Your task to perform on an android device: Open the stopwatch Image 0: 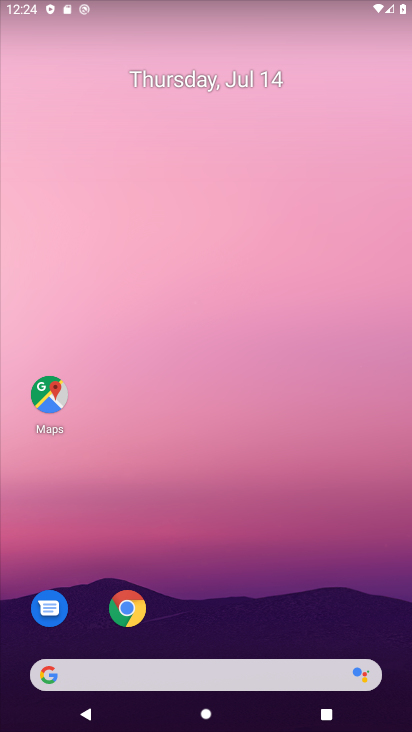
Step 0: press home button
Your task to perform on an android device: Open the stopwatch Image 1: 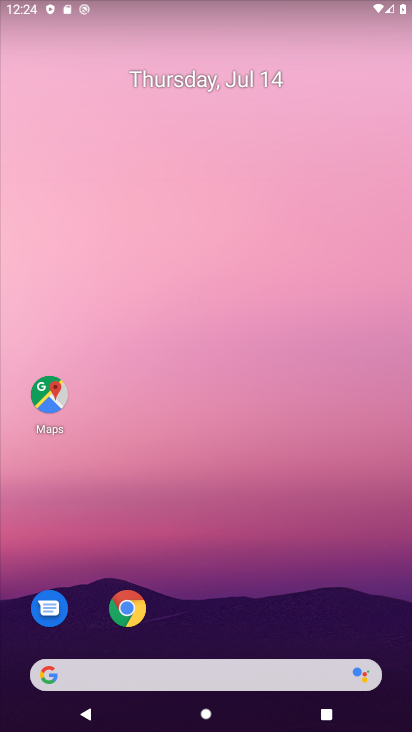
Step 1: drag from (222, 604) to (115, 44)
Your task to perform on an android device: Open the stopwatch Image 2: 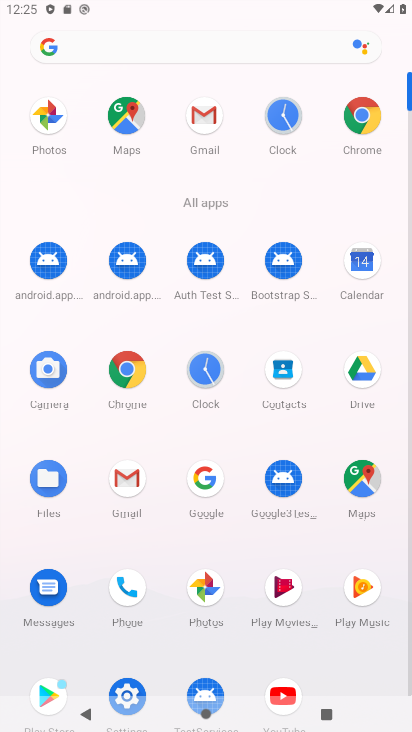
Step 2: click (218, 363)
Your task to perform on an android device: Open the stopwatch Image 3: 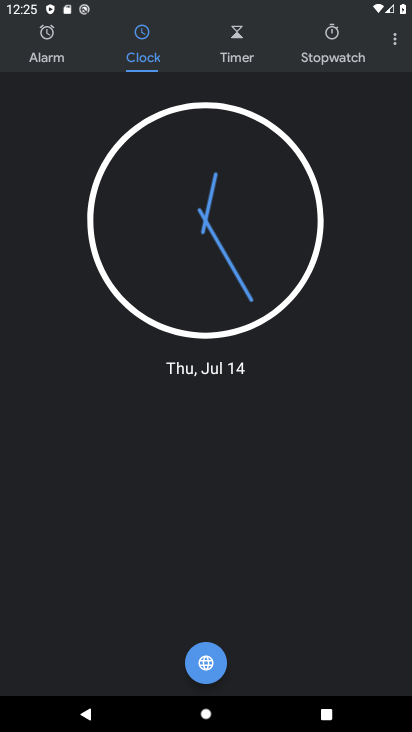
Step 3: click (323, 51)
Your task to perform on an android device: Open the stopwatch Image 4: 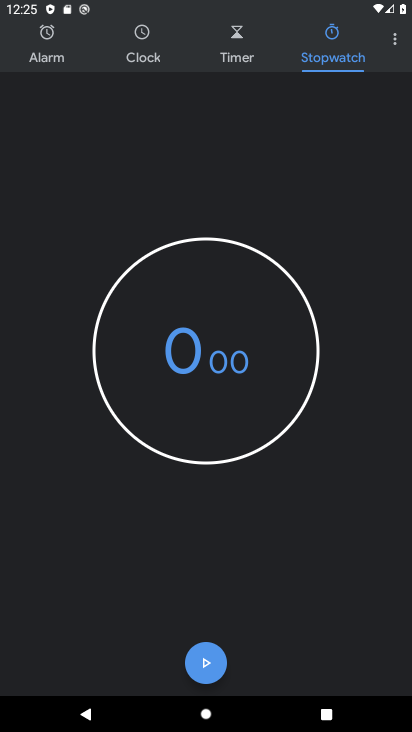
Step 4: click (209, 674)
Your task to perform on an android device: Open the stopwatch Image 5: 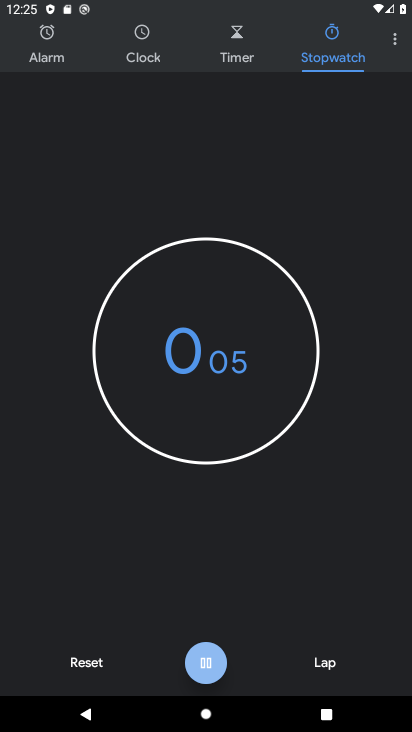
Step 5: click (209, 674)
Your task to perform on an android device: Open the stopwatch Image 6: 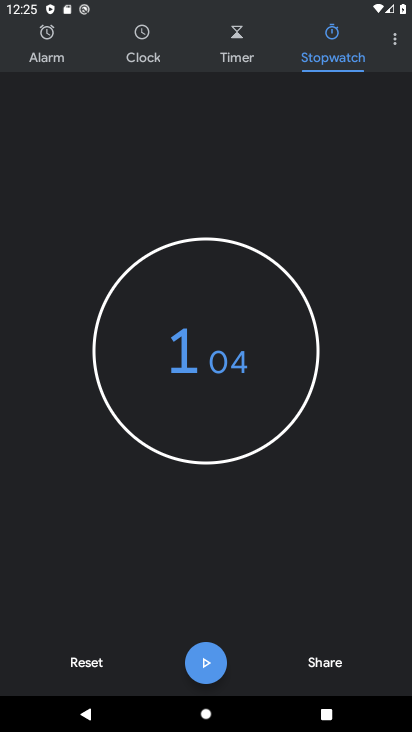
Step 6: click (83, 673)
Your task to perform on an android device: Open the stopwatch Image 7: 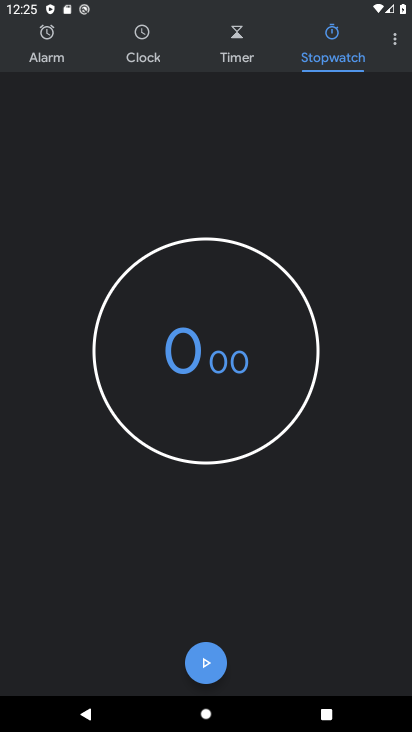
Step 7: task complete